Your task to perform on an android device: Open eBay Image 0: 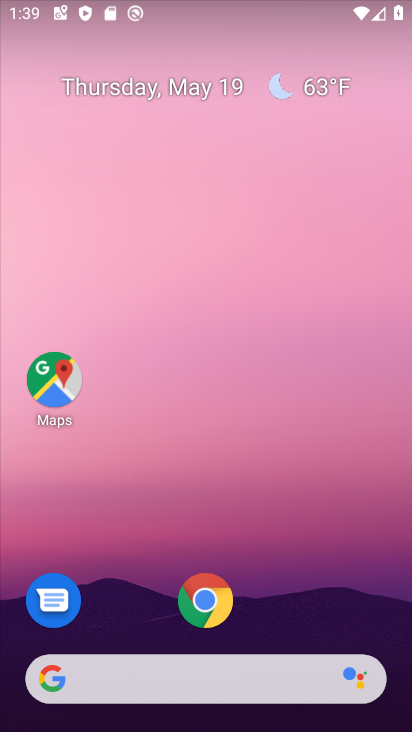
Step 0: click (208, 598)
Your task to perform on an android device: Open eBay Image 1: 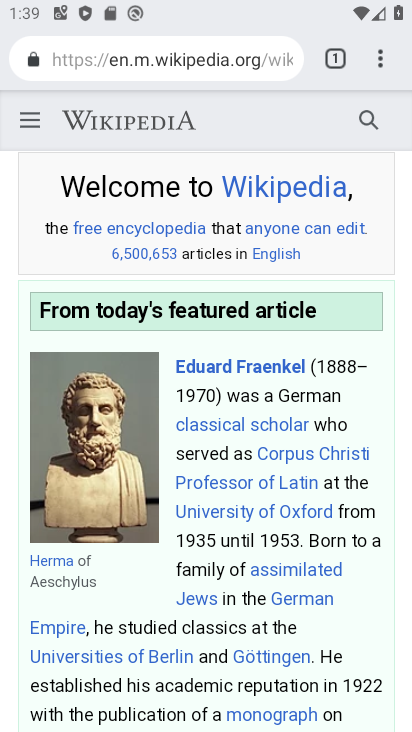
Step 1: click (336, 69)
Your task to perform on an android device: Open eBay Image 2: 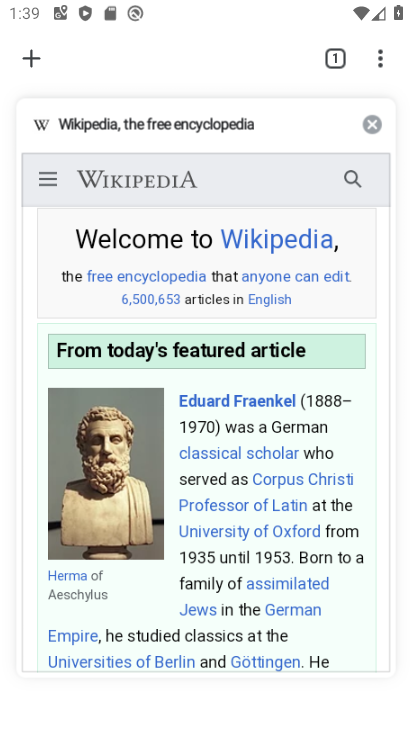
Step 2: click (369, 127)
Your task to perform on an android device: Open eBay Image 3: 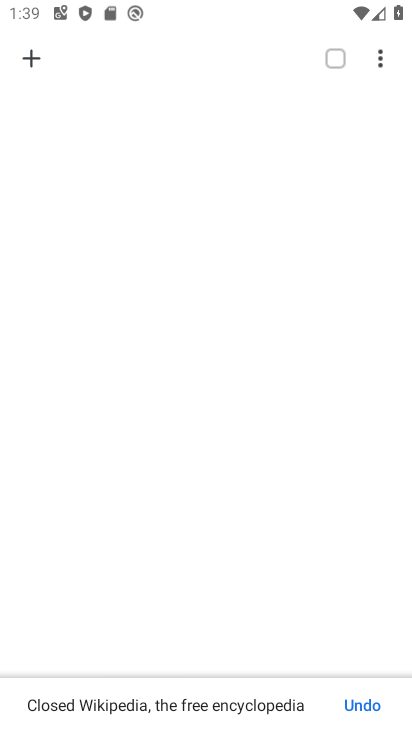
Step 3: click (28, 47)
Your task to perform on an android device: Open eBay Image 4: 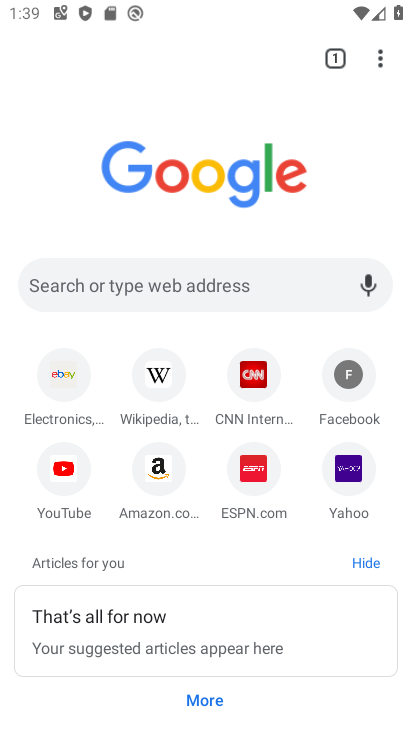
Step 4: click (386, 73)
Your task to perform on an android device: Open eBay Image 5: 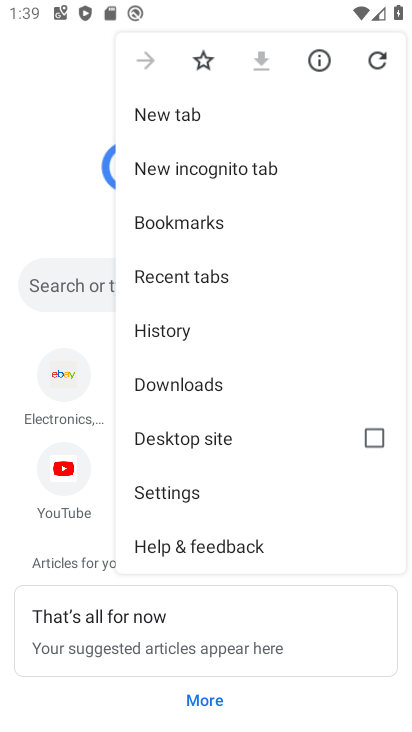
Step 5: click (68, 166)
Your task to perform on an android device: Open eBay Image 6: 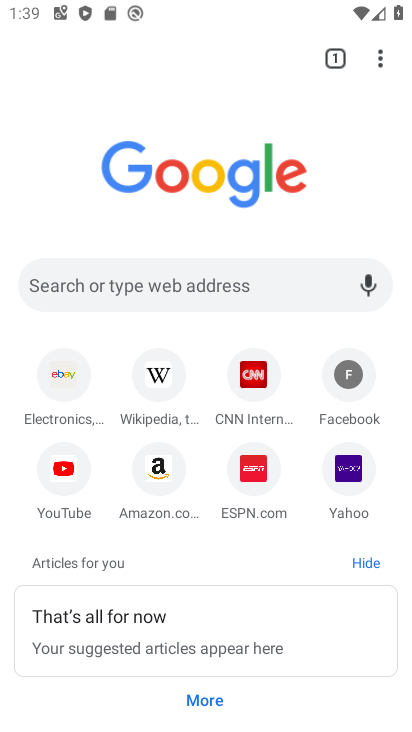
Step 6: click (69, 380)
Your task to perform on an android device: Open eBay Image 7: 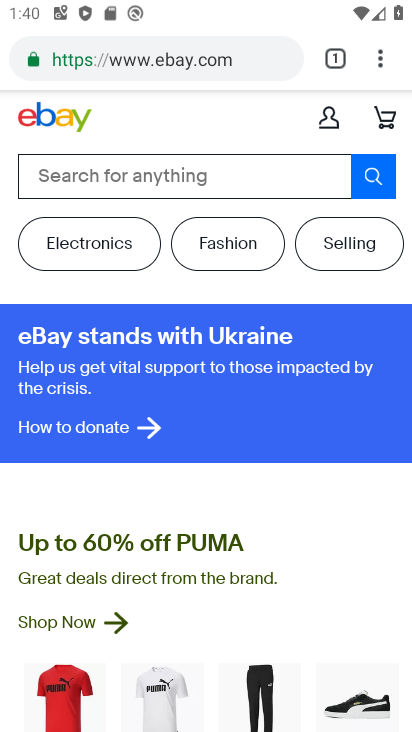
Step 7: task complete